Your task to perform on an android device: visit the assistant section in the google photos Image 0: 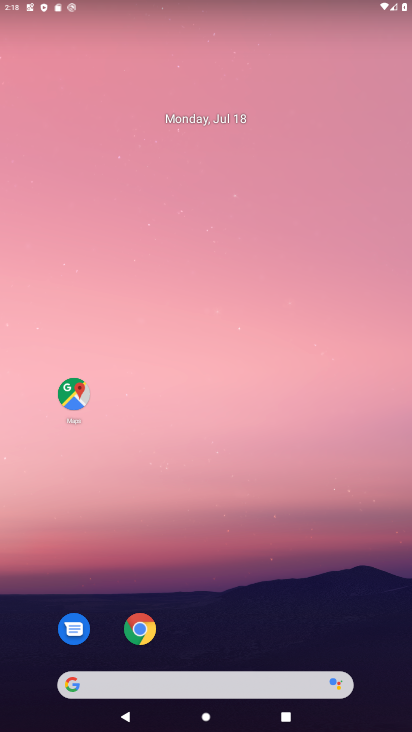
Step 0: drag from (192, 627) to (254, 223)
Your task to perform on an android device: visit the assistant section in the google photos Image 1: 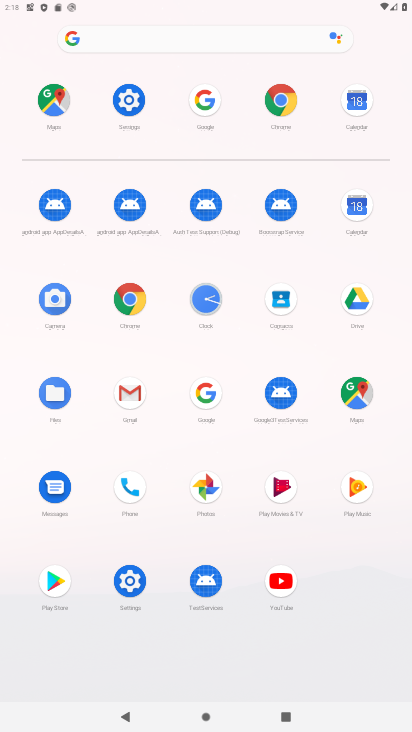
Step 1: click (196, 473)
Your task to perform on an android device: visit the assistant section in the google photos Image 2: 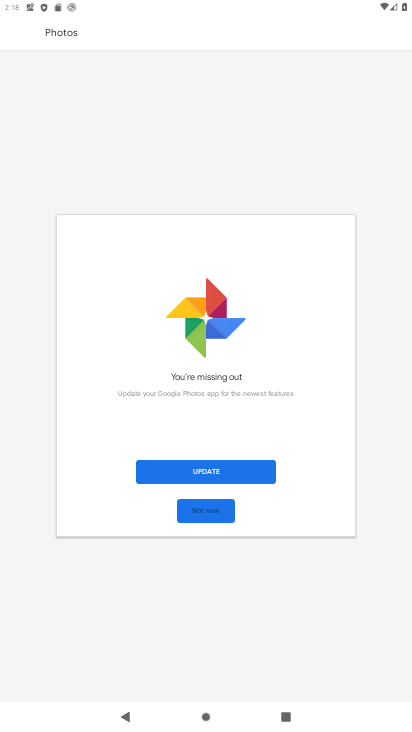
Step 2: click (227, 509)
Your task to perform on an android device: visit the assistant section in the google photos Image 3: 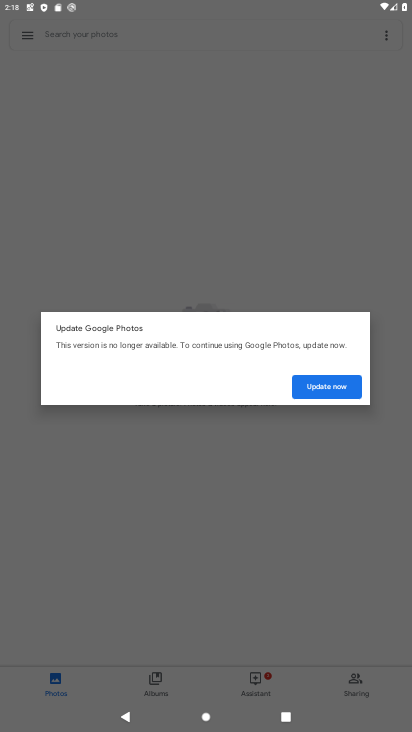
Step 3: click (265, 677)
Your task to perform on an android device: visit the assistant section in the google photos Image 4: 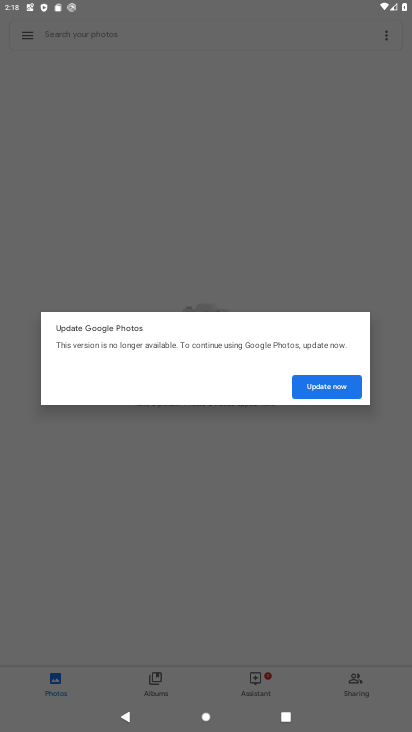
Step 4: click (274, 679)
Your task to perform on an android device: visit the assistant section in the google photos Image 5: 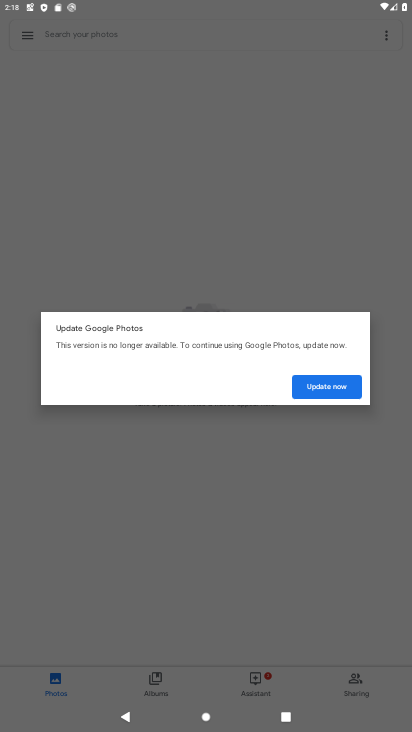
Step 5: click (321, 381)
Your task to perform on an android device: visit the assistant section in the google photos Image 6: 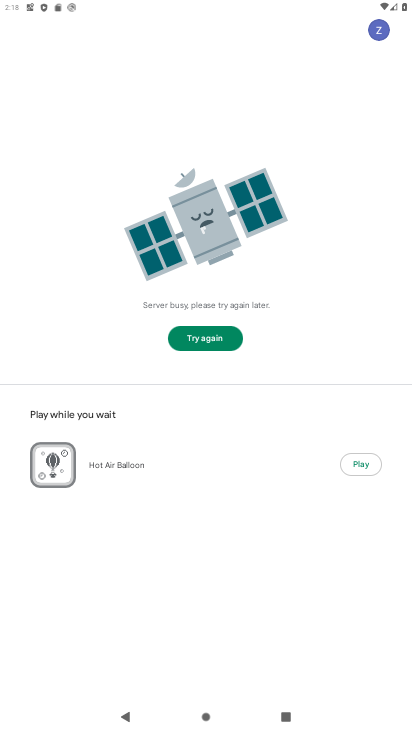
Step 6: press back button
Your task to perform on an android device: visit the assistant section in the google photos Image 7: 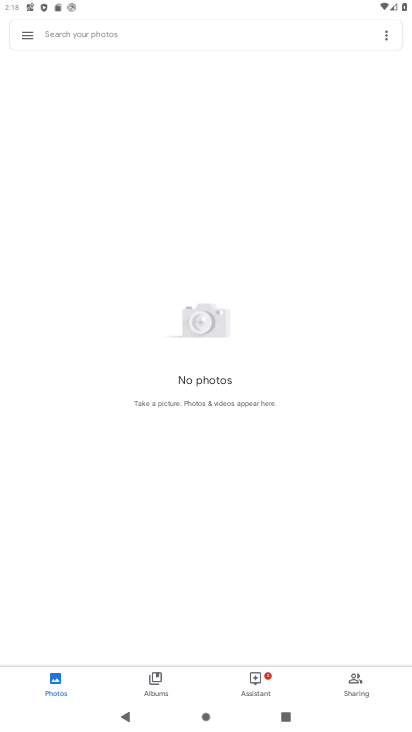
Step 7: click (254, 683)
Your task to perform on an android device: visit the assistant section in the google photos Image 8: 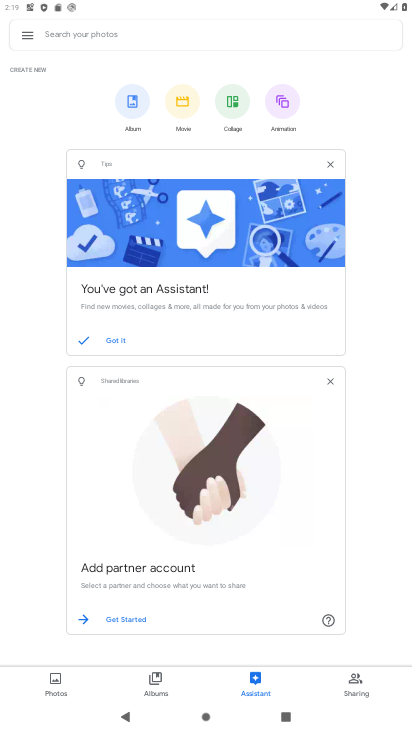
Step 8: task complete